Your task to perform on an android device: Open Wikipedia Image 0: 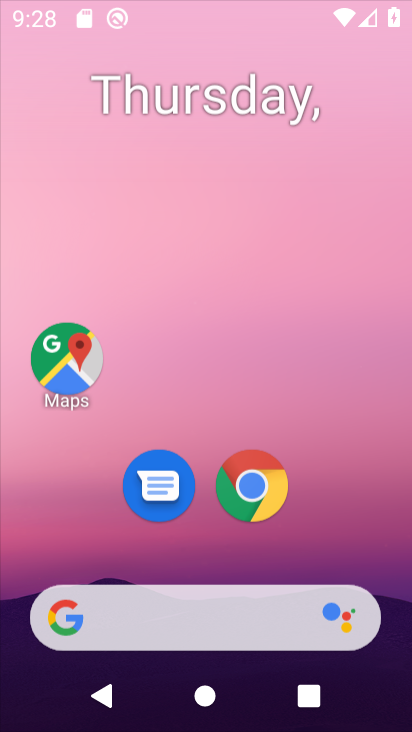
Step 0: press home button
Your task to perform on an android device: Open Wikipedia Image 1: 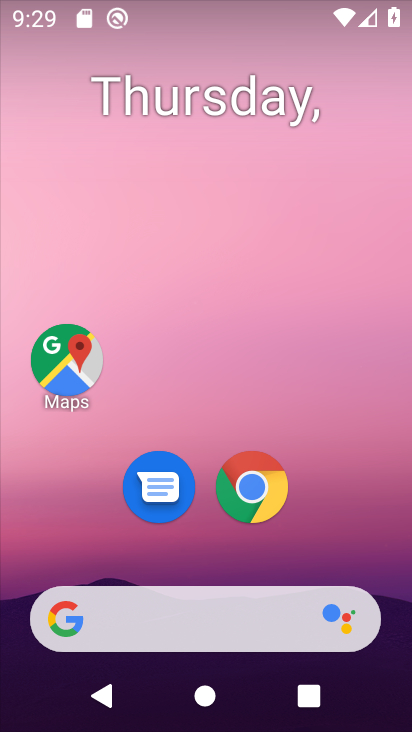
Step 1: click (259, 488)
Your task to perform on an android device: Open Wikipedia Image 2: 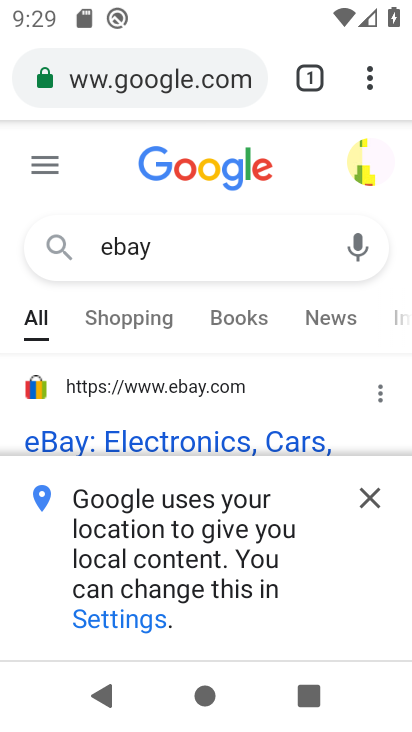
Step 2: click (369, 78)
Your task to perform on an android device: Open Wikipedia Image 3: 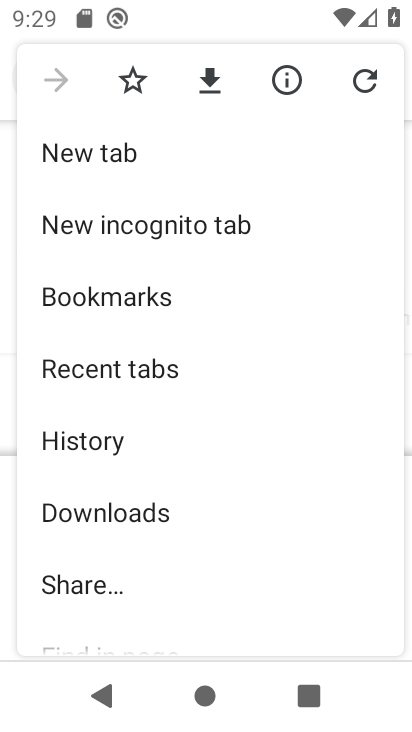
Step 3: click (119, 151)
Your task to perform on an android device: Open Wikipedia Image 4: 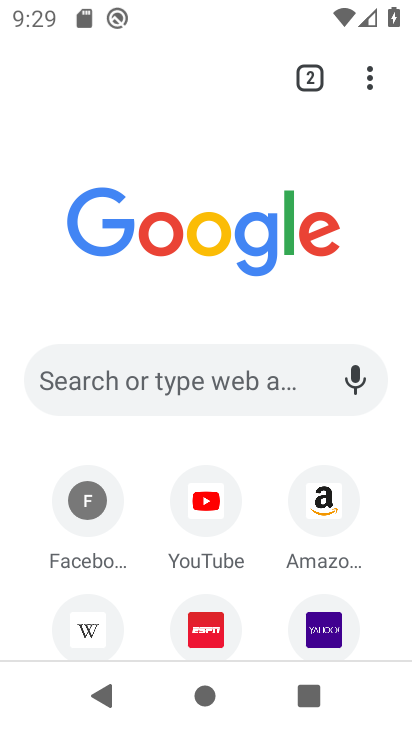
Step 4: click (92, 618)
Your task to perform on an android device: Open Wikipedia Image 5: 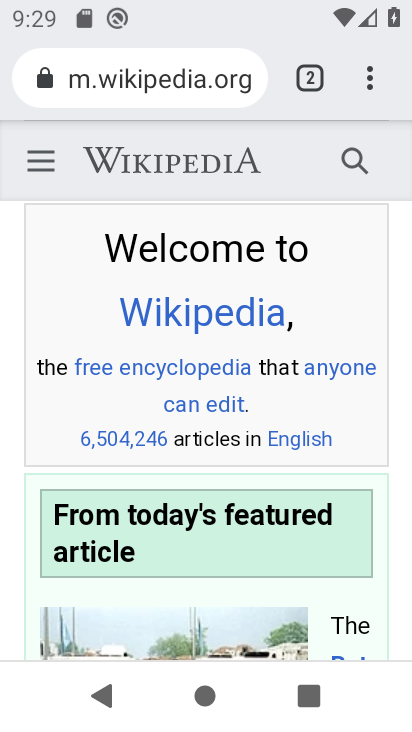
Step 5: task complete